Your task to perform on an android device: Go to accessibility settings Image 0: 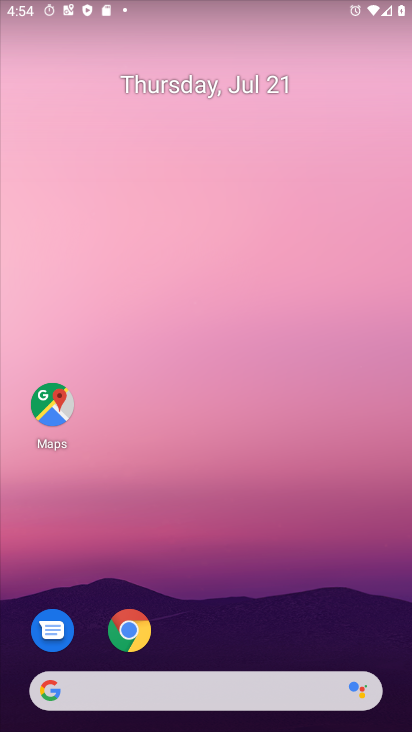
Step 0: drag from (186, 686) to (321, 284)
Your task to perform on an android device: Go to accessibility settings Image 1: 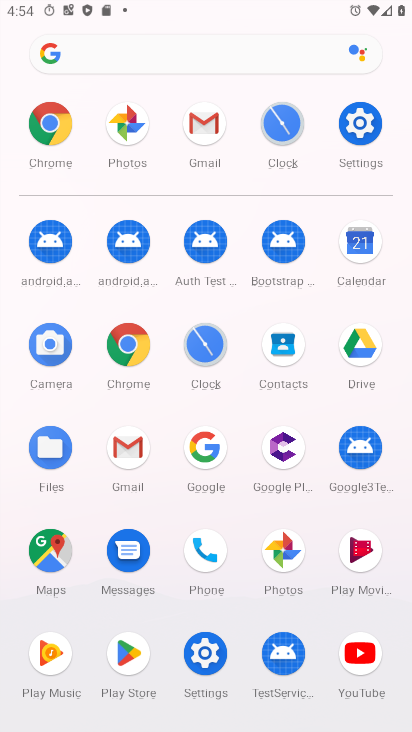
Step 1: click (207, 651)
Your task to perform on an android device: Go to accessibility settings Image 2: 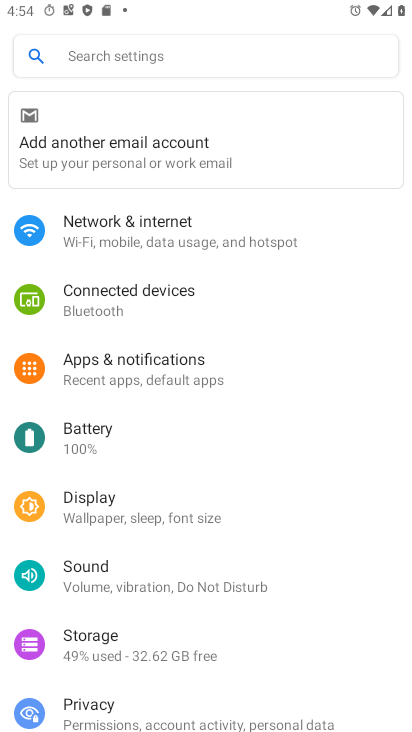
Step 2: drag from (149, 622) to (232, 440)
Your task to perform on an android device: Go to accessibility settings Image 3: 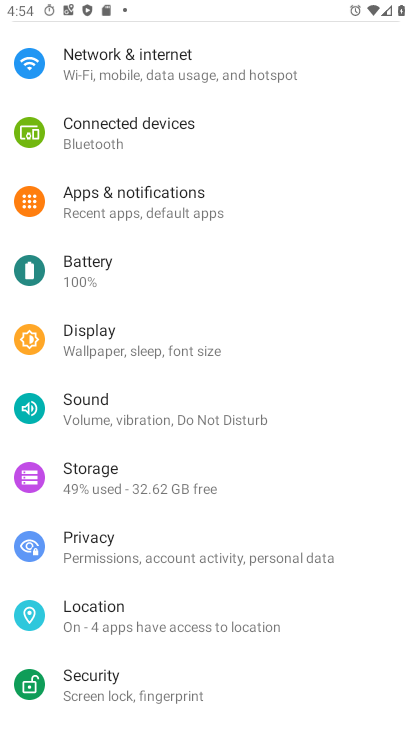
Step 3: drag from (158, 576) to (236, 432)
Your task to perform on an android device: Go to accessibility settings Image 4: 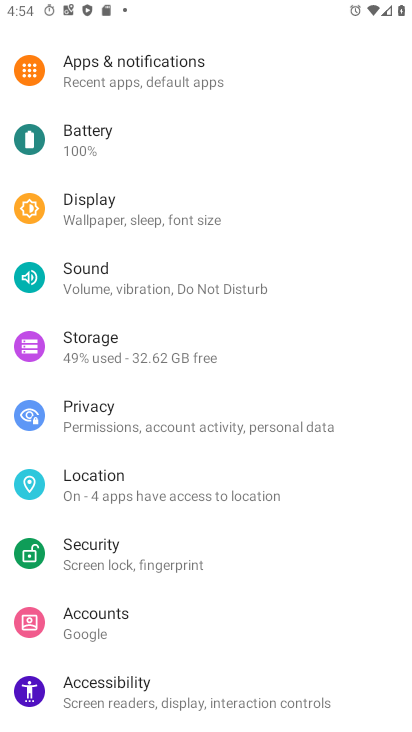
Step 4: drag from (137, 589) to (230, 437)
Your task to perform on an android device: Go to accessibility settings Image 5: 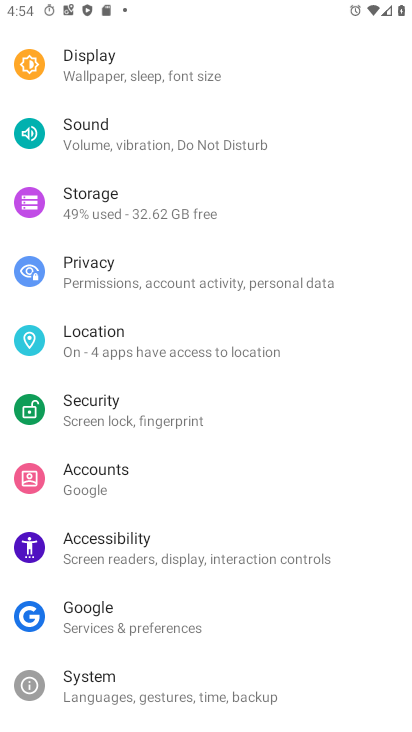
Step 5: click (122, 544)
Your task to perform on an android device: Go to accessibility settings Image 6: 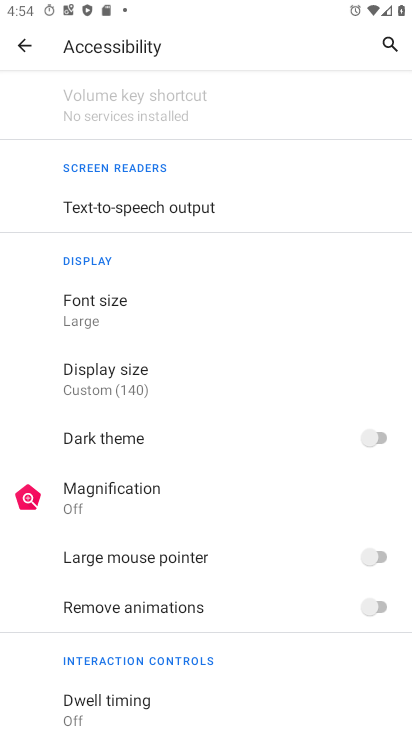
Step 6: task complete